Your task to perform on an android device: turn off translation in the chrome app Image 0: 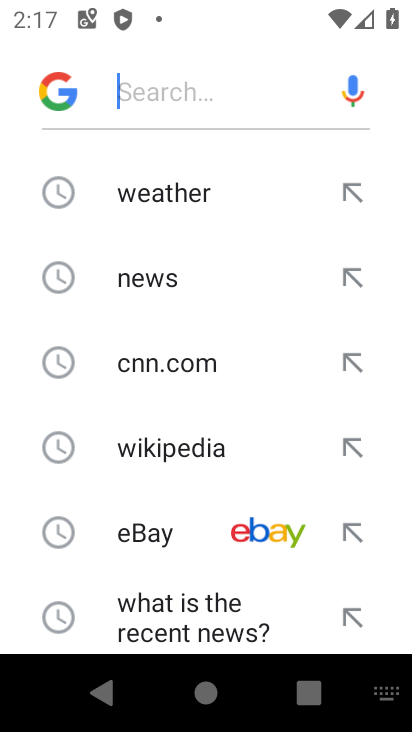
Step 0: press home button
Your task to perform on an android device: turn off translation in the chrome app Image 1: 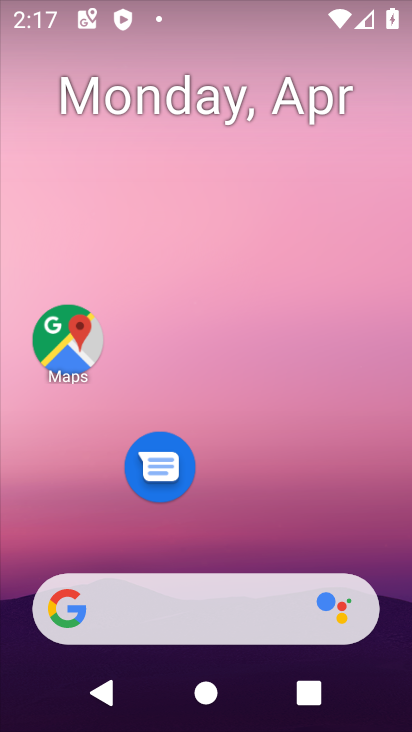
Step 1: drag from (210, 537) to (251, 62)
Your task to perform on an android device: turn off translation in the chrome app Image 2: 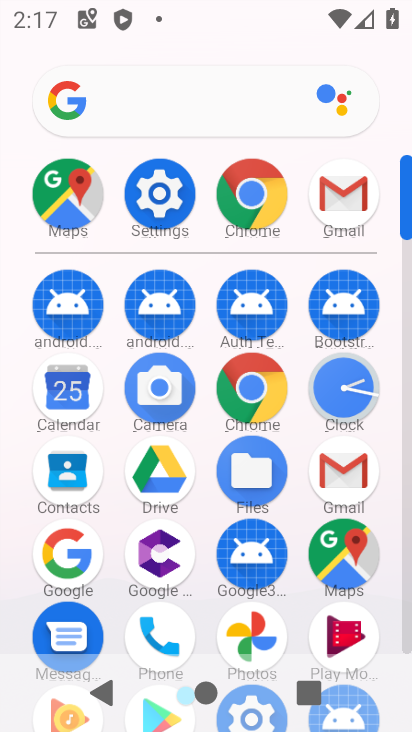
Step 2: click (267, 185)
Your task to perform on an android device: turn off translation in the chrome app Image 3: 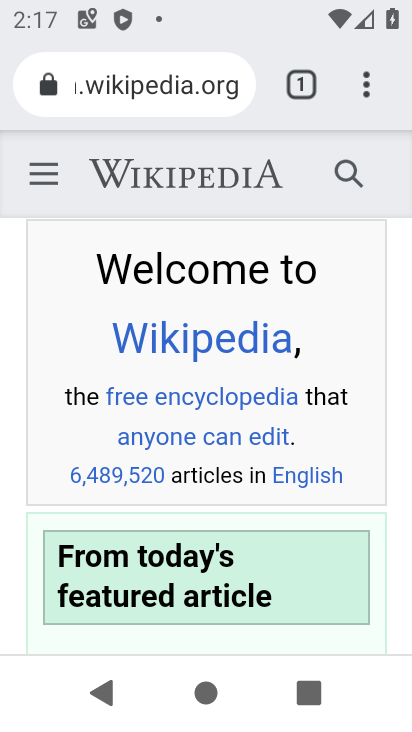
Step 3: click (357, 99)
Your task to perform on an android device: turn off translation in the chrome app Image 4: 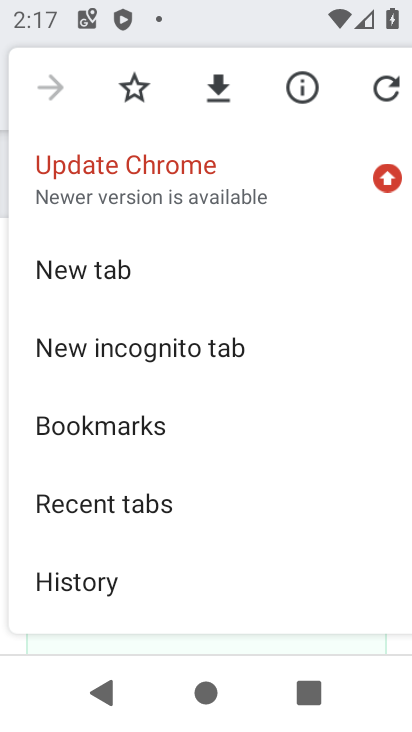
Step 4: drag from (239, 569) to (228, 24)
Your task to perform on an android device: turn off translation in the chrome app Image 5: 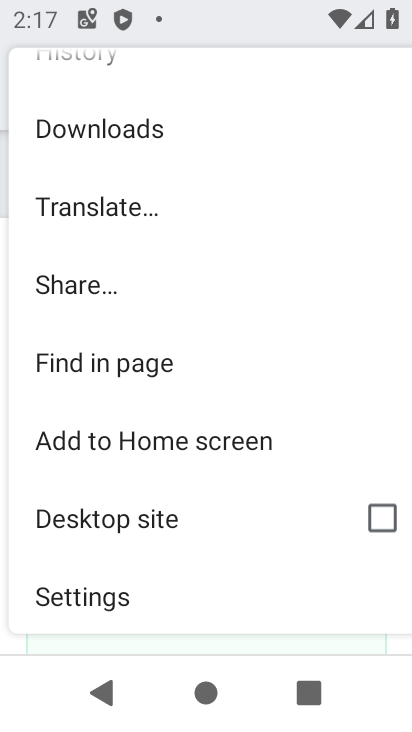
Step 5: click (151, 594)
Your task to perform on an android device: turn off translation in the chrome app Image 6: 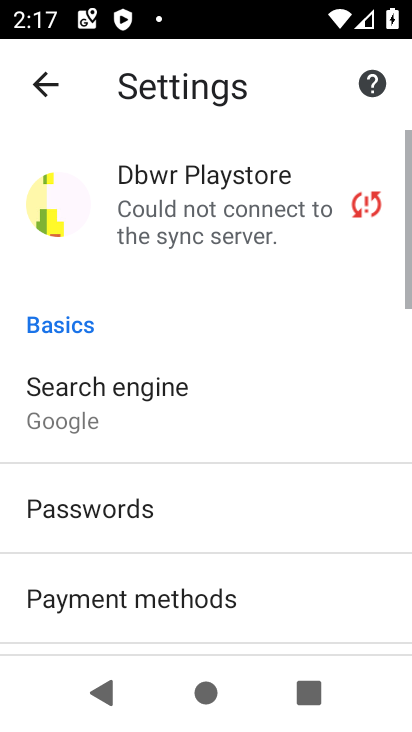
Step 6: drag from (156, 604) to (151, 215)
Your task to perform on an android device: turn off translation in the chrome app Image 7: 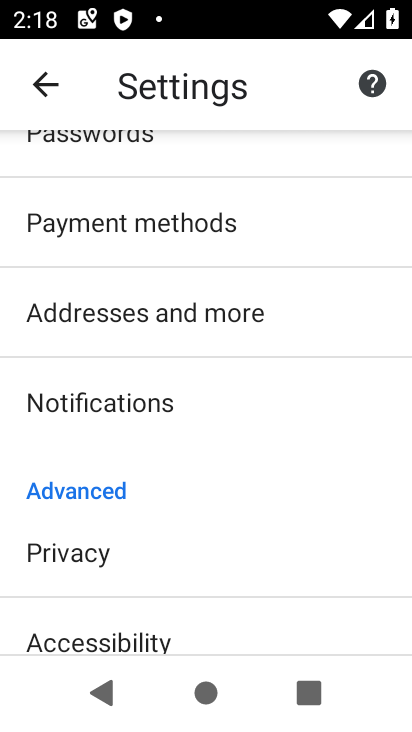
Step 7: drag from (204, 521) to (216, 117)
Your task to perform on an android device: turn off translation in the chrome app Image 8: 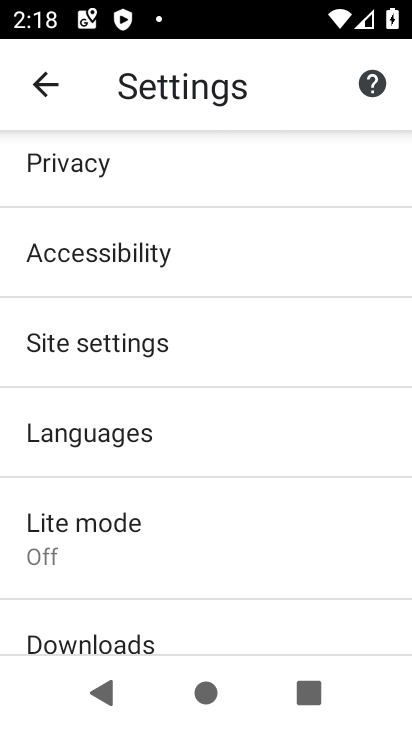
Step 8: click (255, 449)
Your task to perform on an android device: turn off translation in the chrome app Image 9: 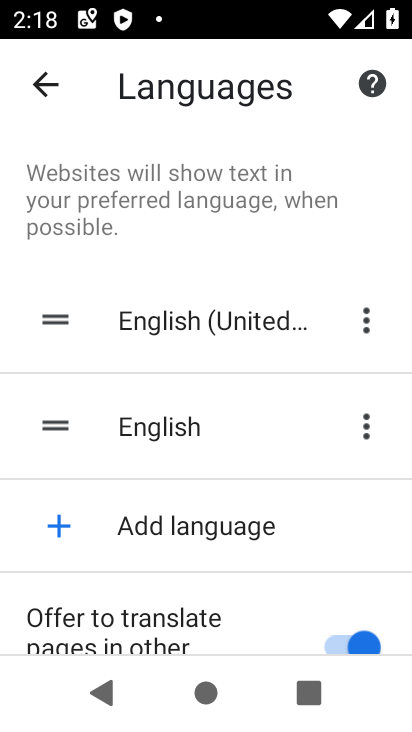
Step 9: drag from (266, 612) to (263, 182)
Your task to perform on an android device: turn off translation in the chrome app Image 10: 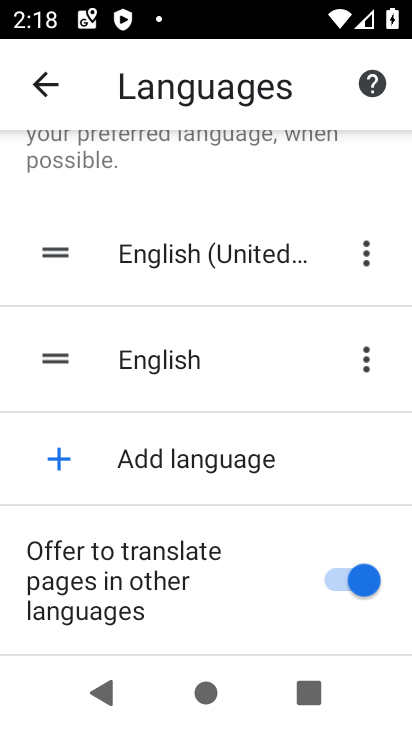
Step 10: click (334, 577)
Your task to perform on an android device: turn off translation in the chrome app Image 11: 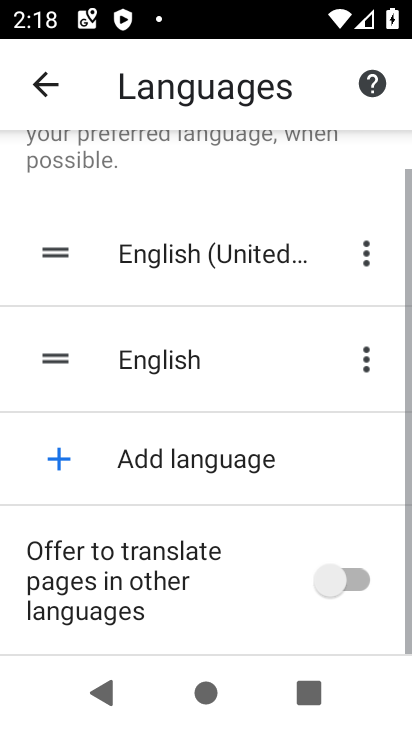
Step 11: task complete